Your task to perform on an android device: toggle translation in the chrome app Image 0: 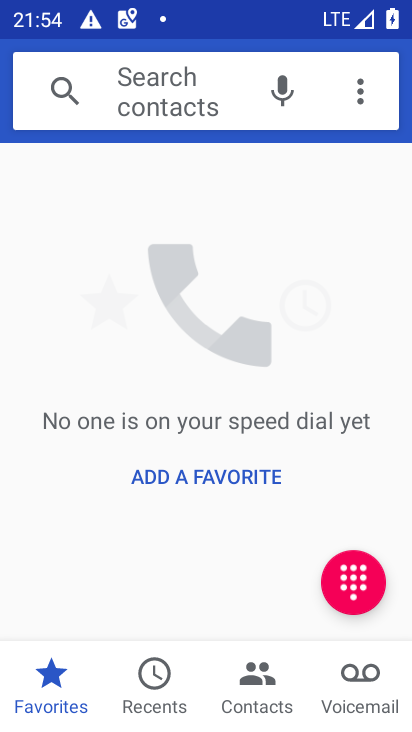
Step 0: press home button
Your task to perform on an android device: toggle translation in the chrome app Image 1: 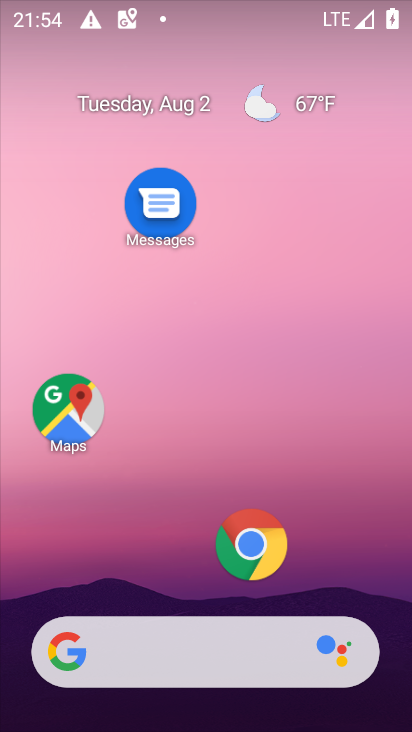
Step 1: click (228, 550)
Your task to perform on an android device: toggle translation in the chrome app Image 2: 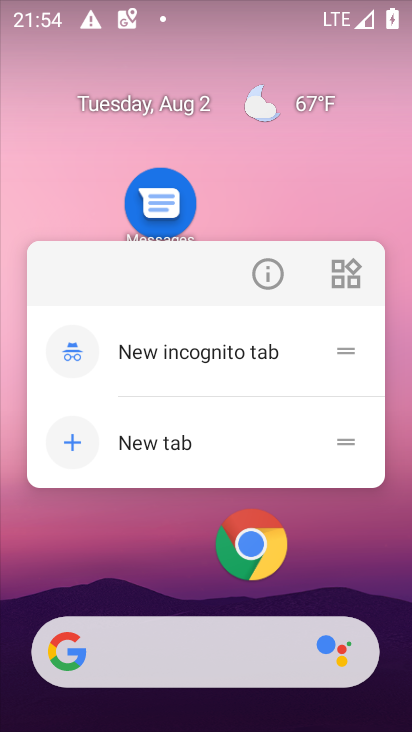
Step 2: click (228, 550)
Your task to perform on an android device: toggle translation in the chrome app Image 3: 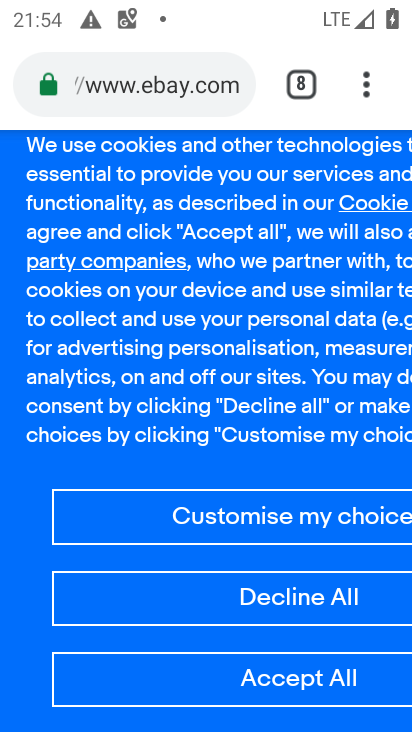
Step 3: click (363, 77)
Your task to perform on an android device: toggle translation in the chrome app Image 4: 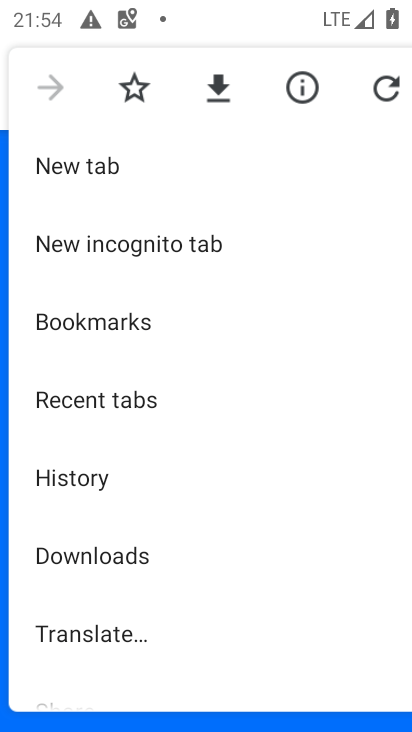
Step 4: drag from (167, 617) to (192, 278)
Your task to perform on an android device: toggle translation in the chrome app Image 5: 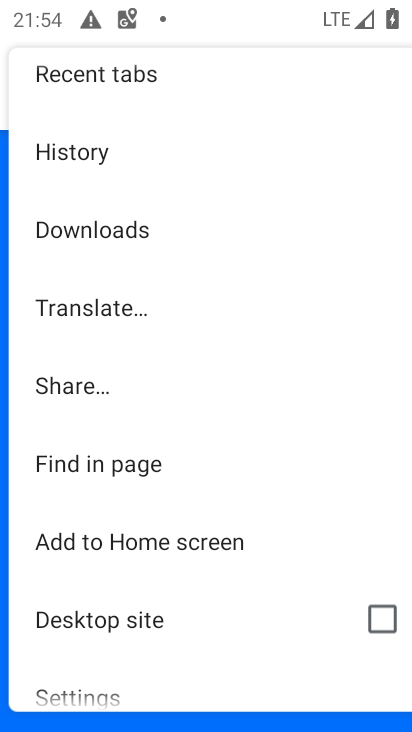
Step 5: drag from (112, 655) to (172, 325)
Your task to perform on an android device: toggle translation in the chrome app Image 6: 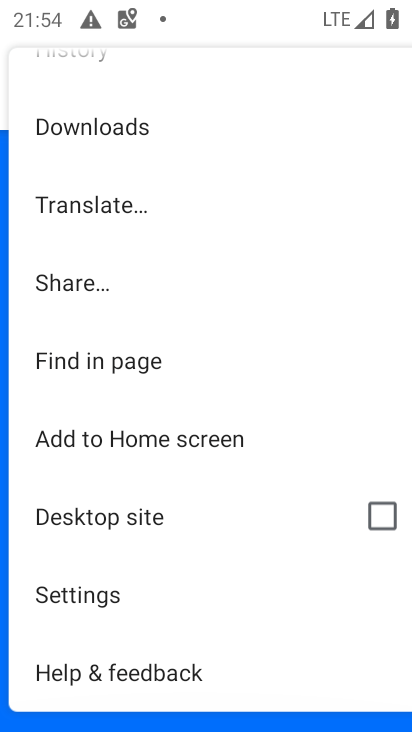
Step 6: click (110, 587)
Your task to perform on an android device: toggle translation in the chrome app Image 7: 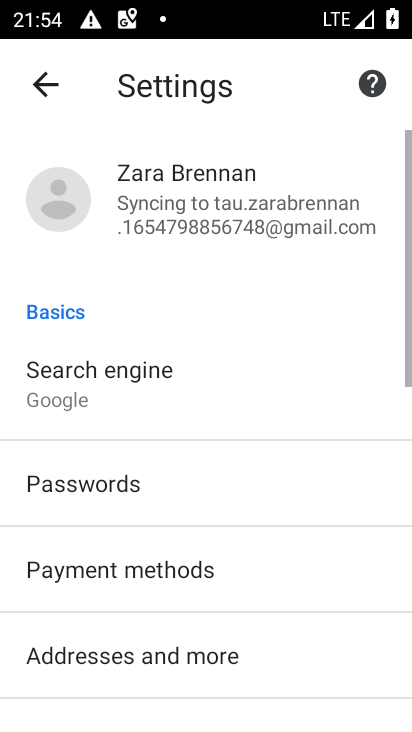
Step 7: drag from (137, 626) to (163, 213)
Your task to perform on an android device: toggle translation in the chrome app Image 8: 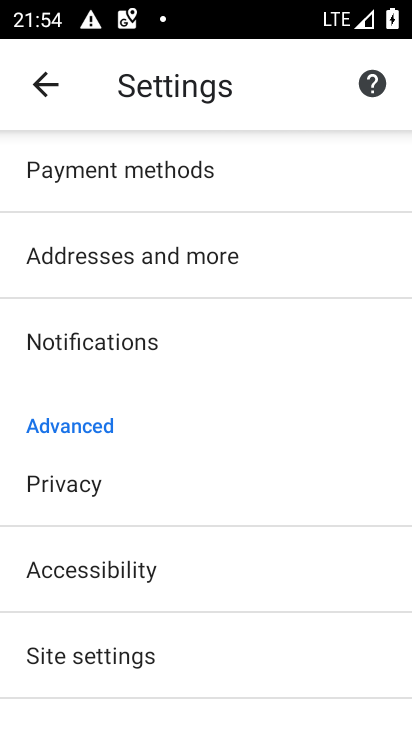
Step 8: drag from (136, 646) to (188, 297)
Your task to perform on an android device: toggle translation in the chrome app Image 9: 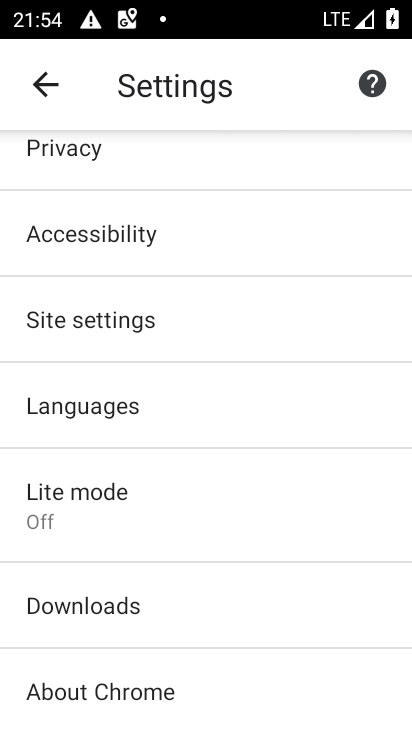
Step 9: click (166, 397)
Your task to perform on an android device: toggle translation in the chrome app Image 10: 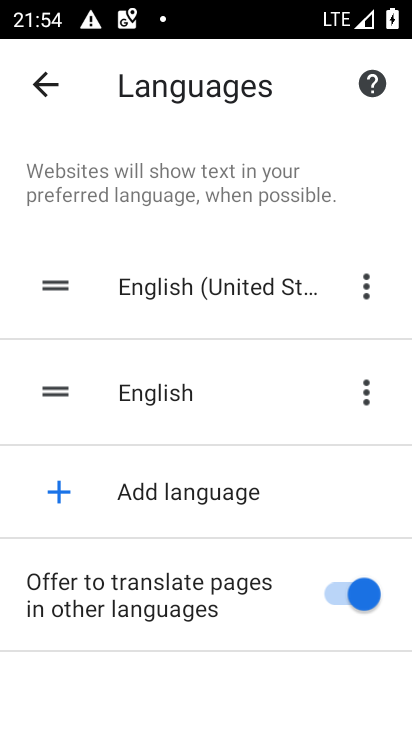
Step 10: click (321, 593)
Your task to perform on an android device: toggle translation in the chrome app Image 11: 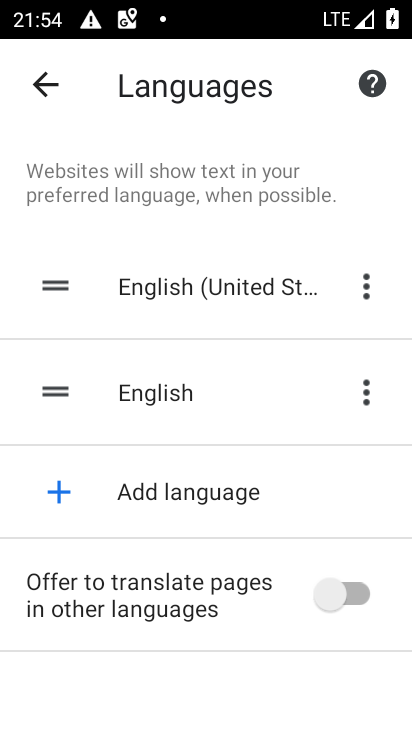
Step 11: task complete